Your task to perform on an android device: Search for sushi restaurants on Maps Image 0: 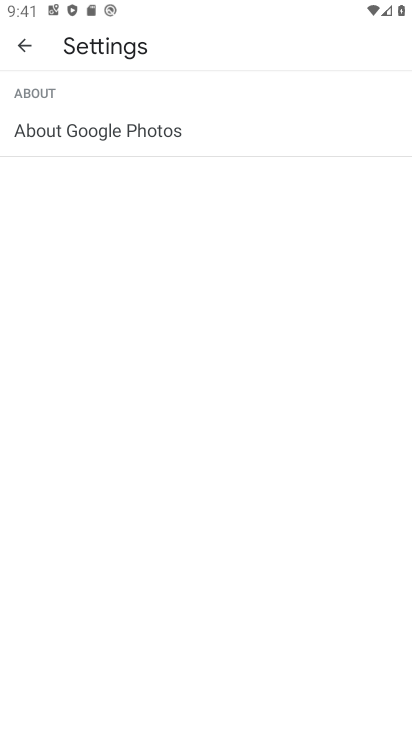
Step 0: press home button
Your task to perform on an android device: Search for sushi restaurants on Maps Image 1: 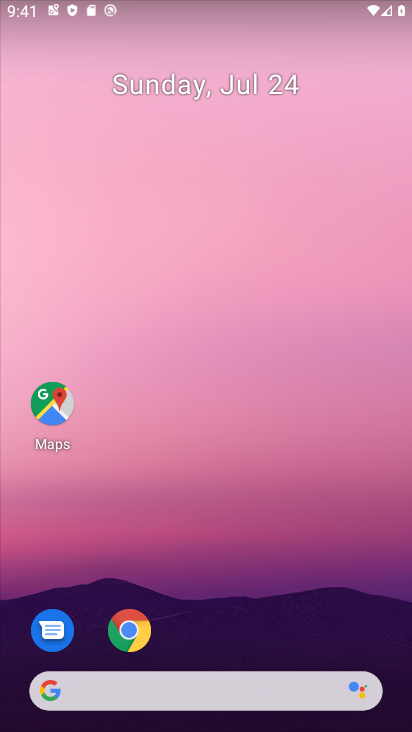
Step 1: click (49, 424)
Your task to perform on an android device: Search for sushi restaurants on Maps Image 2: 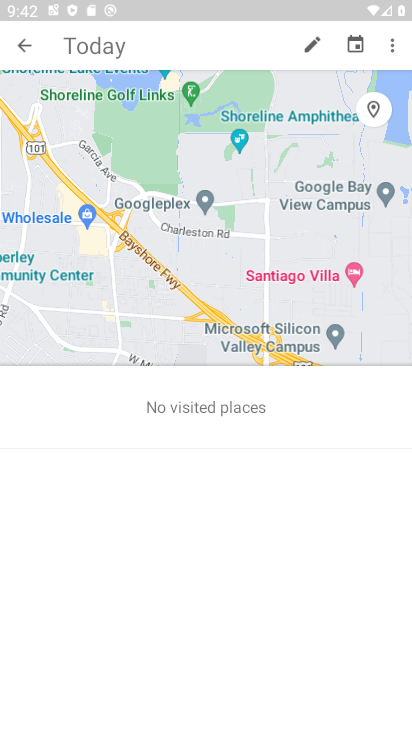
Step 2: click (24, 47)
Your task to perform on an android device: Search for sushi restaurants on Maps Image 3: 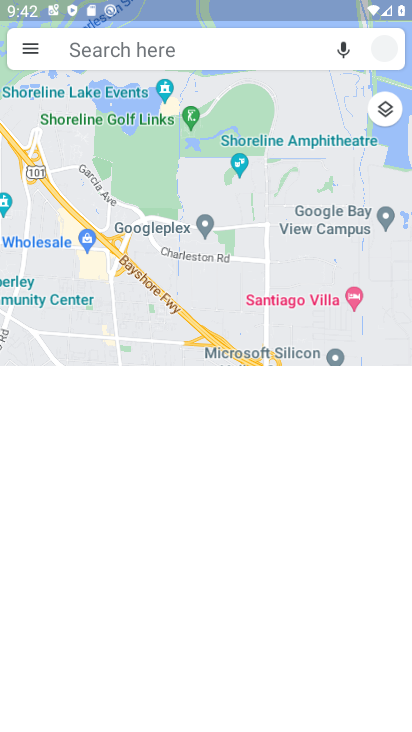
Step 3: click (226, 59)
Your task to perform on an android device: Search for sushi restaurants on Maps Image 4: 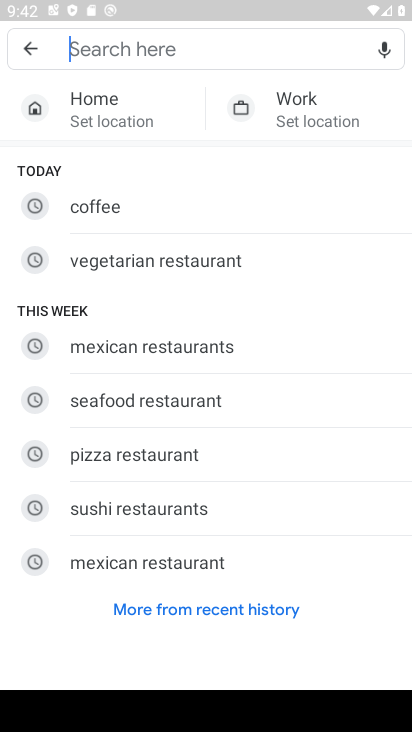
Step 4: click (160, 504)
Your task to perform on an android device: Search for sushi restaurants on Maps Image 5: 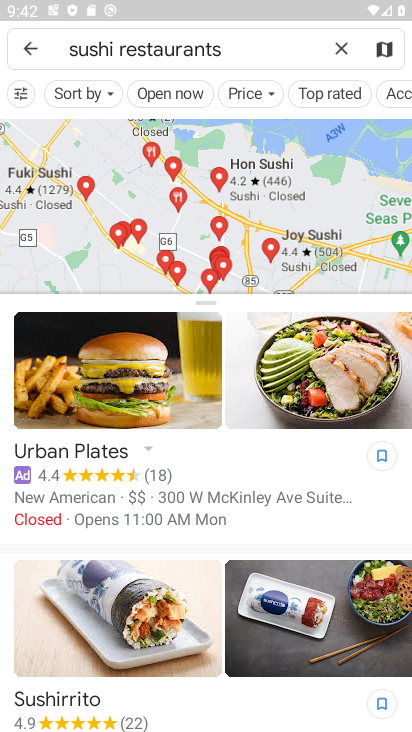
Step 5: task complete